Your task to perform on an android device: change keyboard looks Image 0: 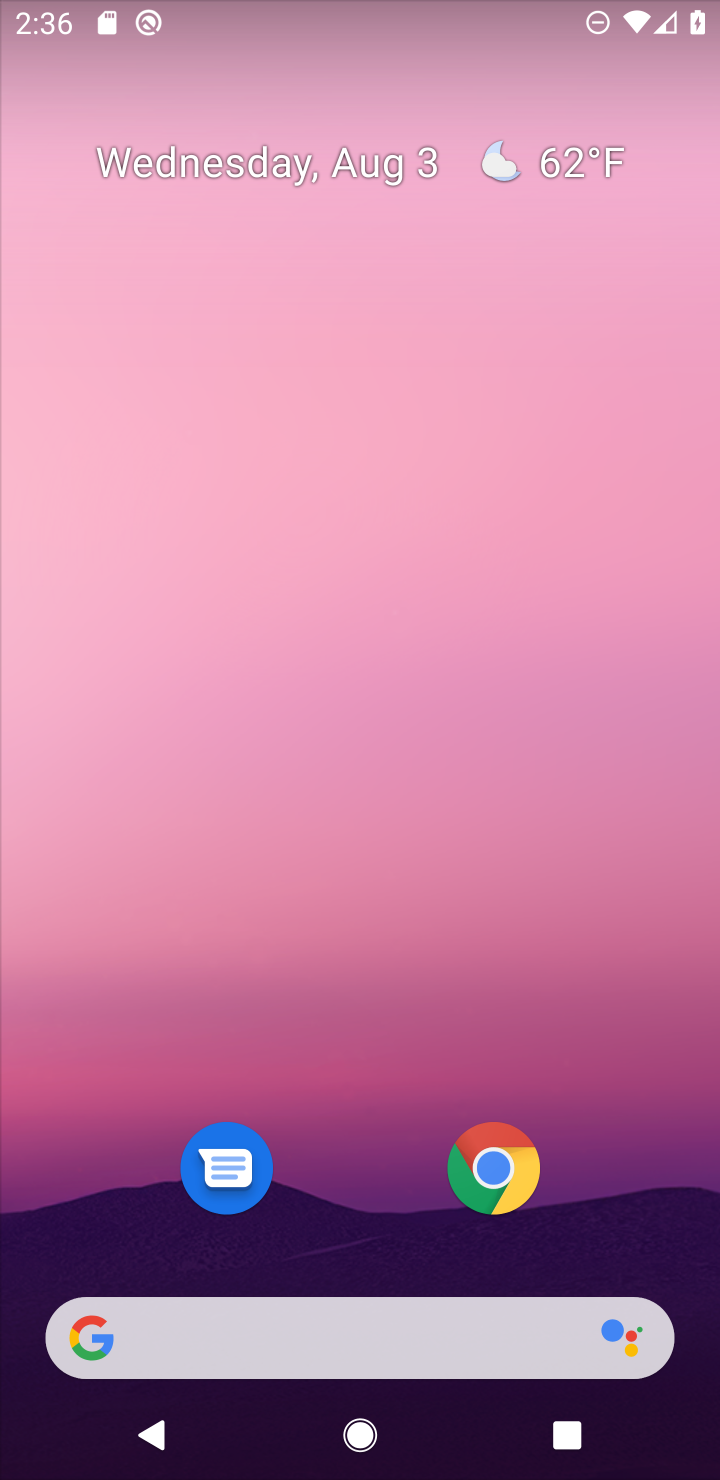
Step 0: drag from (646, 1242) to (653, 337)
Your task to perform on an android device: change keyboard looks Image 1: 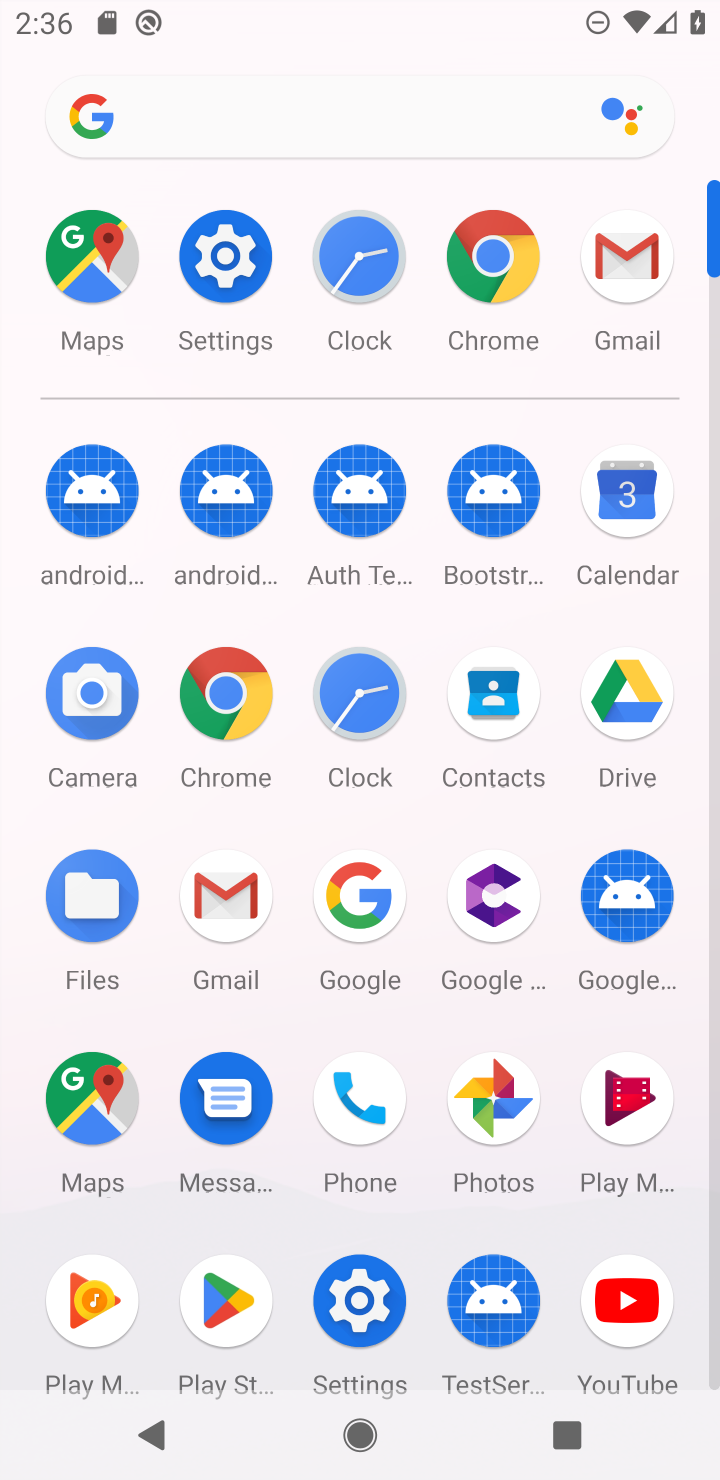
Step 1: click (362, 1300)
Your task to perform on an android device: change keyboard looks Image 2: 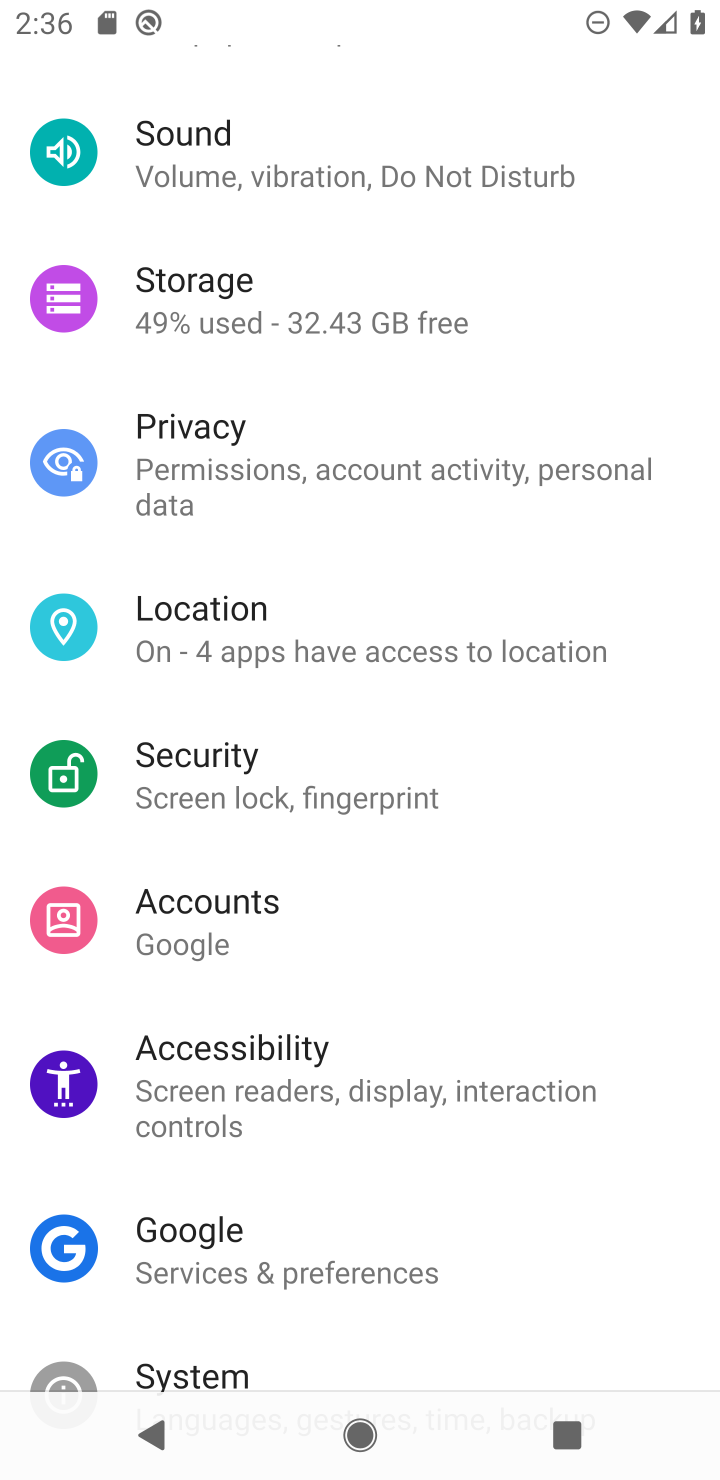
Step 2: drag from (362, 1300) to (420, 294)
Your task to perform on an android device: change keyboard looks Image 3: 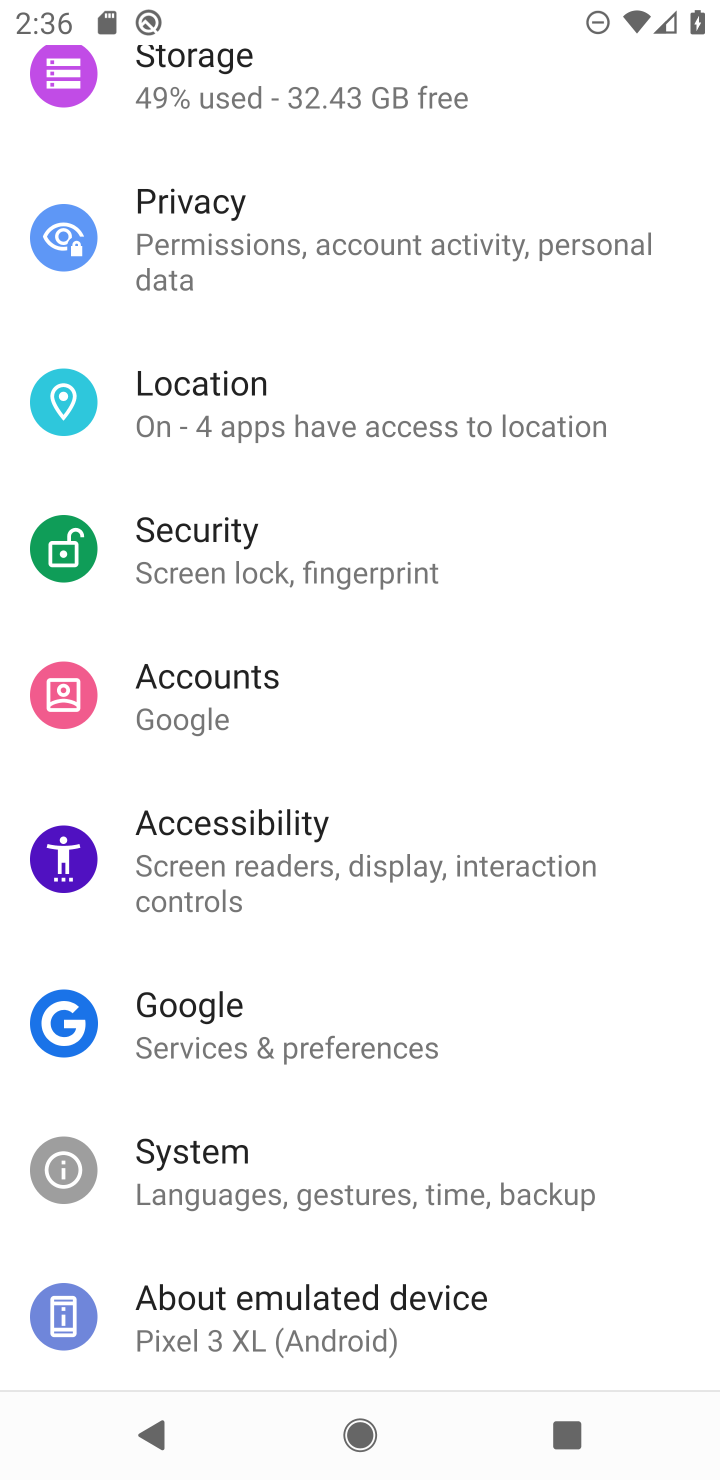
Step 3: click (184, 1157)
Your task to perform on an android device: change keyboard looks Image 4: 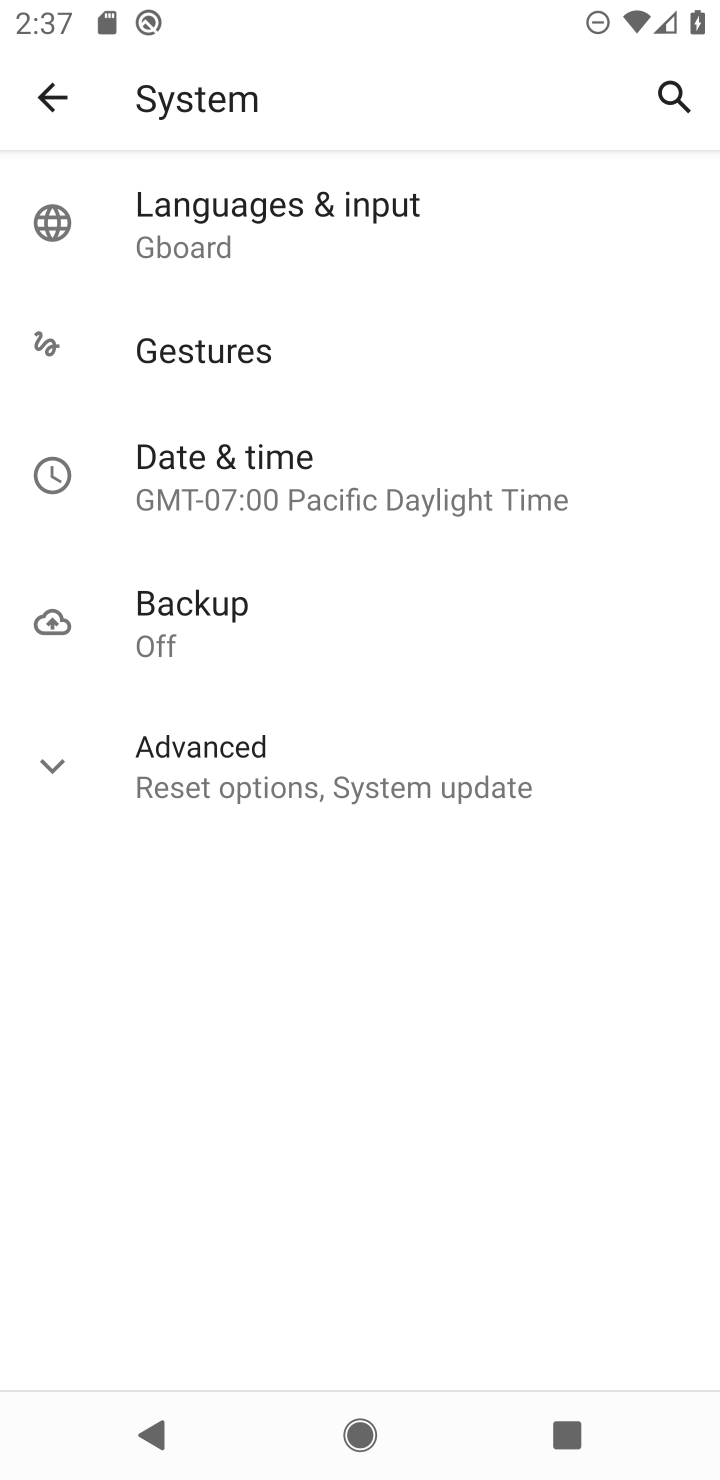
Step 4: click (250, 216)
Your task to perform on an android device: change keyboard looks Image 5: 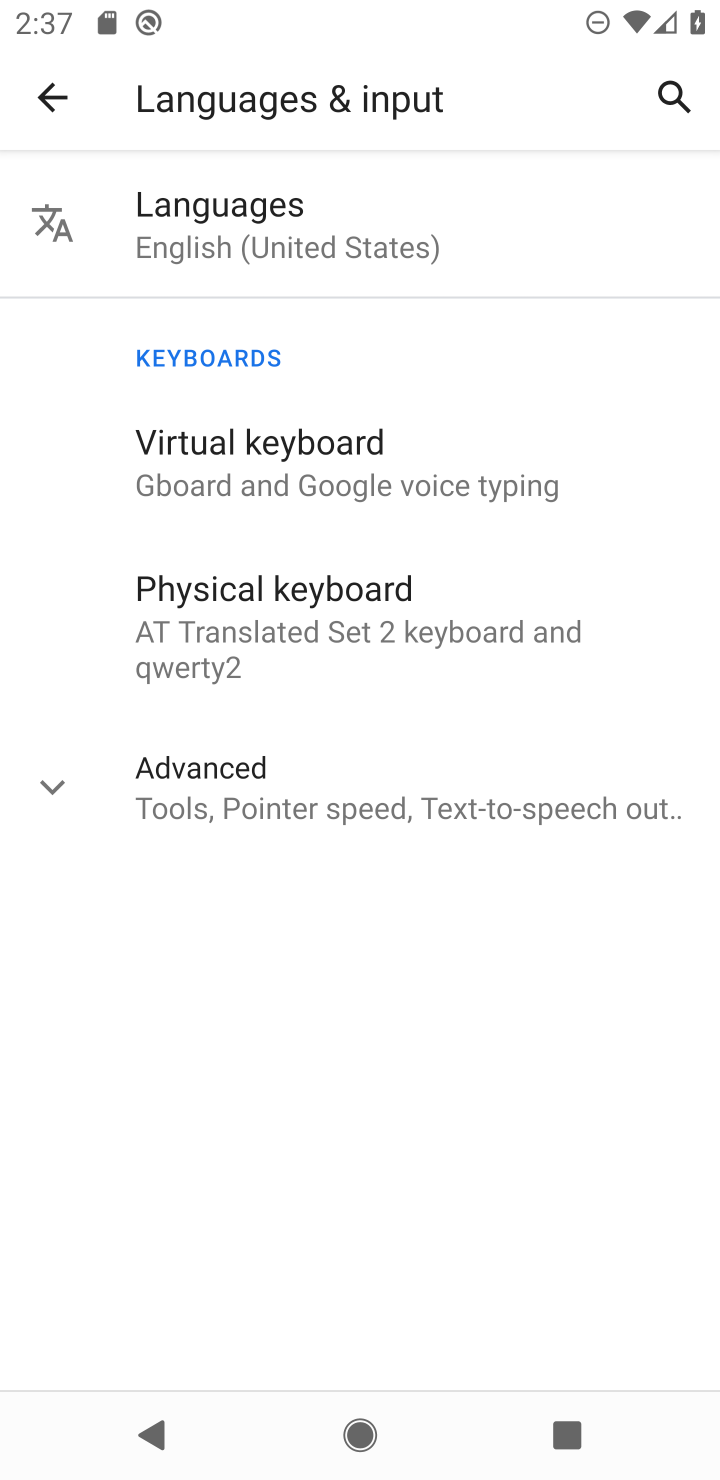
Step 5: click (276, 609)
Your task to perform on an android device: change keyboard looks Image 6: 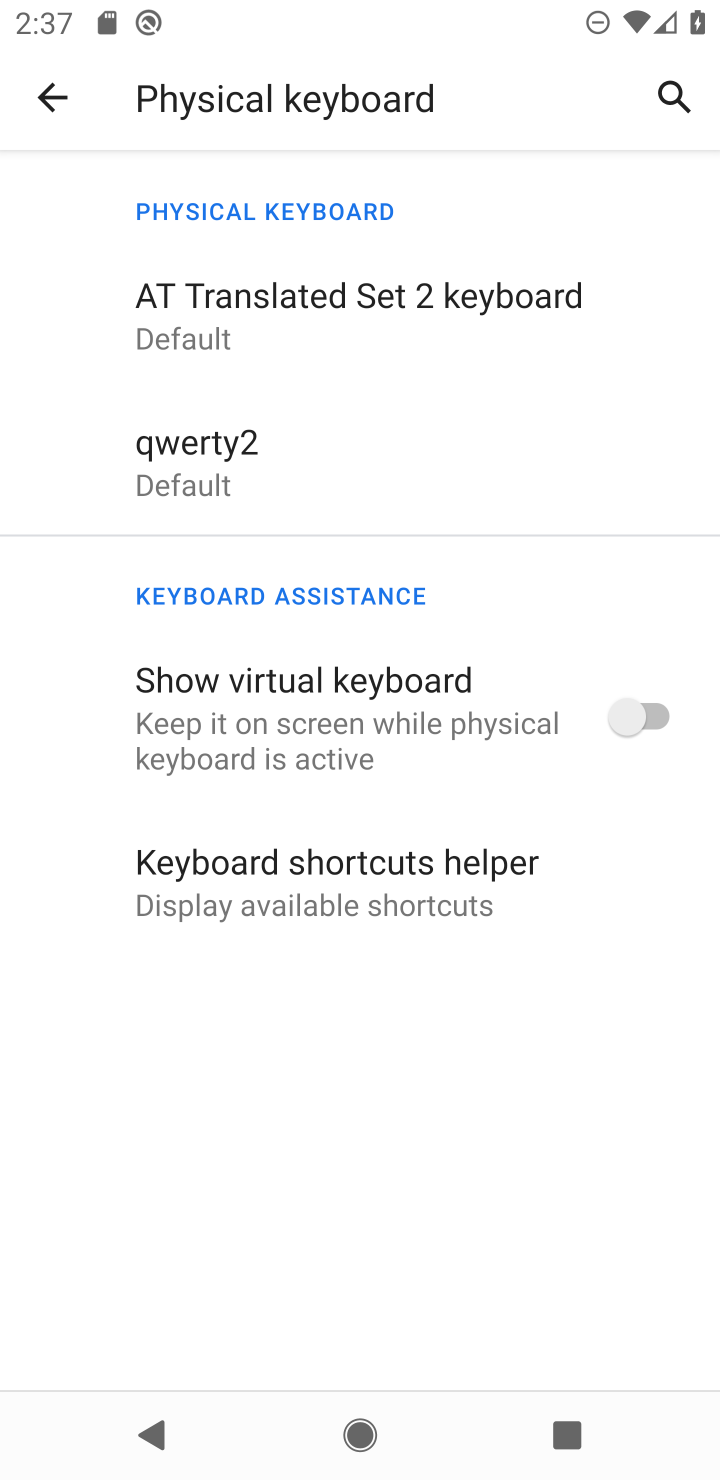
Step 6: click (194, 459)
Your task to perform on an android device: change keyboard looks Image 7: 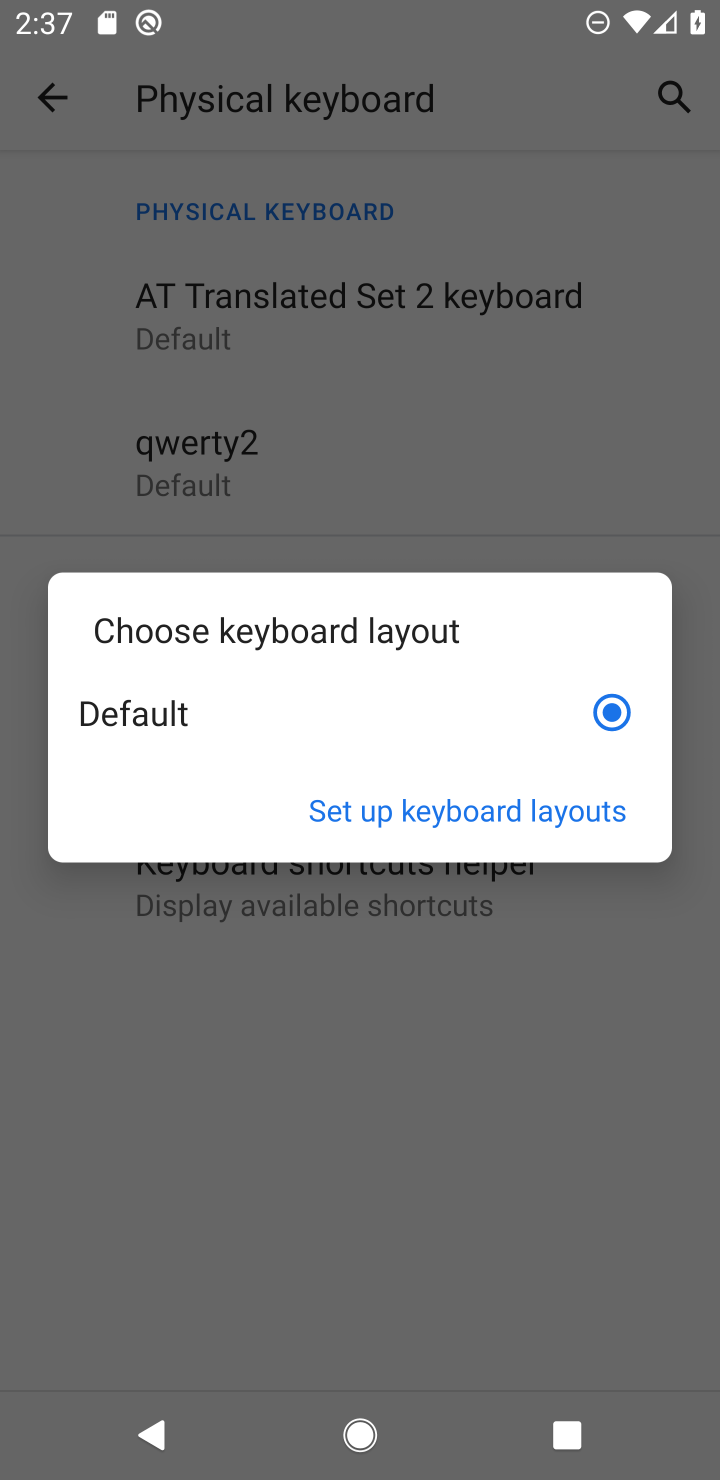
Step 7: click (496, 797)
Your task to perform on an android device: change keyboard looks Image 8: 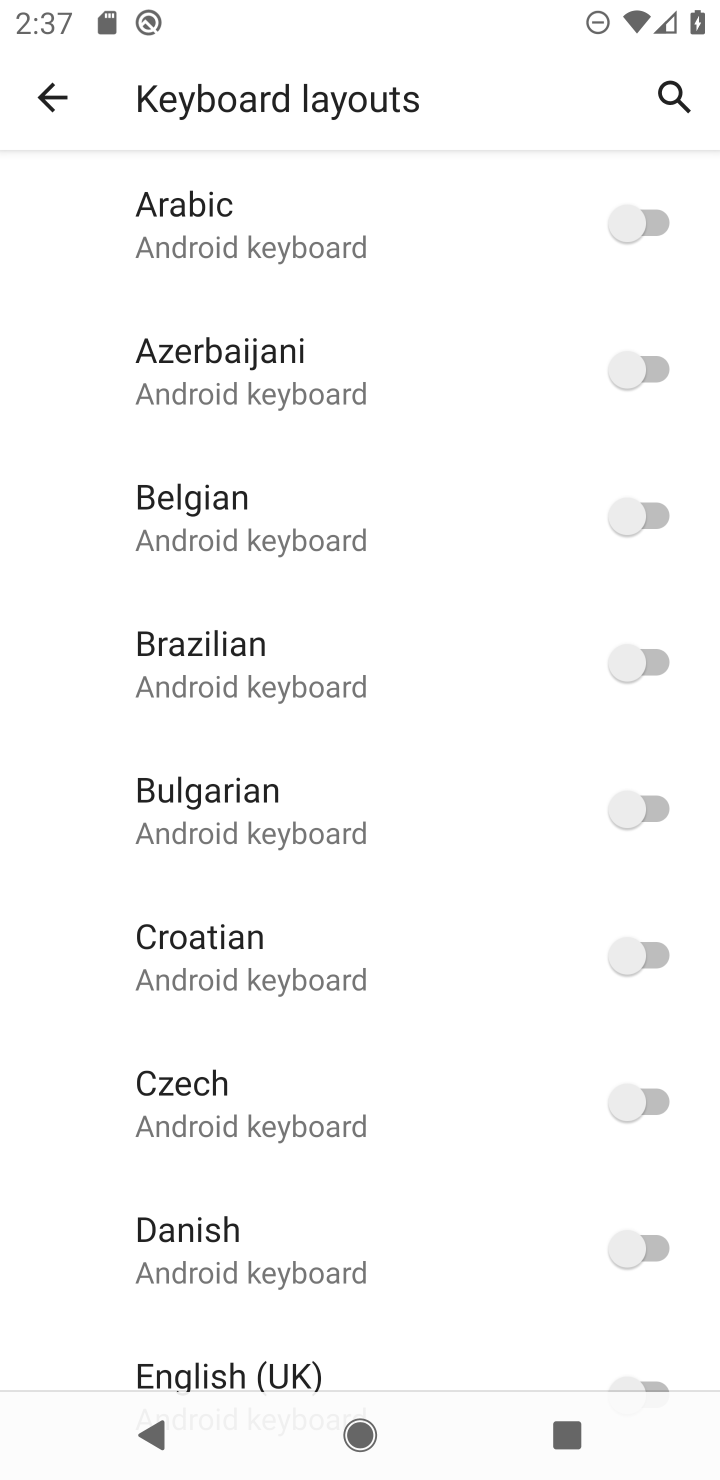
Step 8: drag from (589, 1304) to (496, 440)
Your task to perform on an android device: change keyboard looks Image 9: 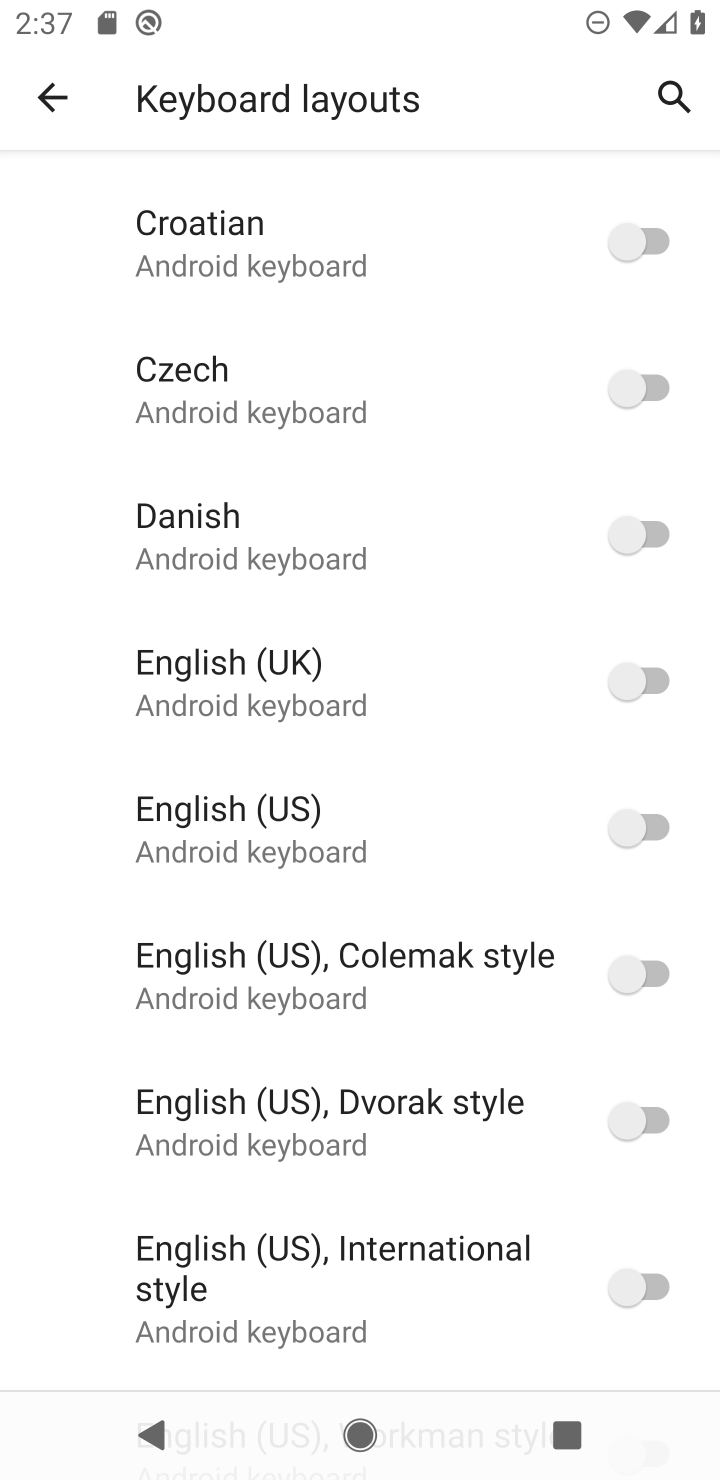
Step 9: click (649, 822)
Your task to perform on an android device: change keyboard looks Image 10: 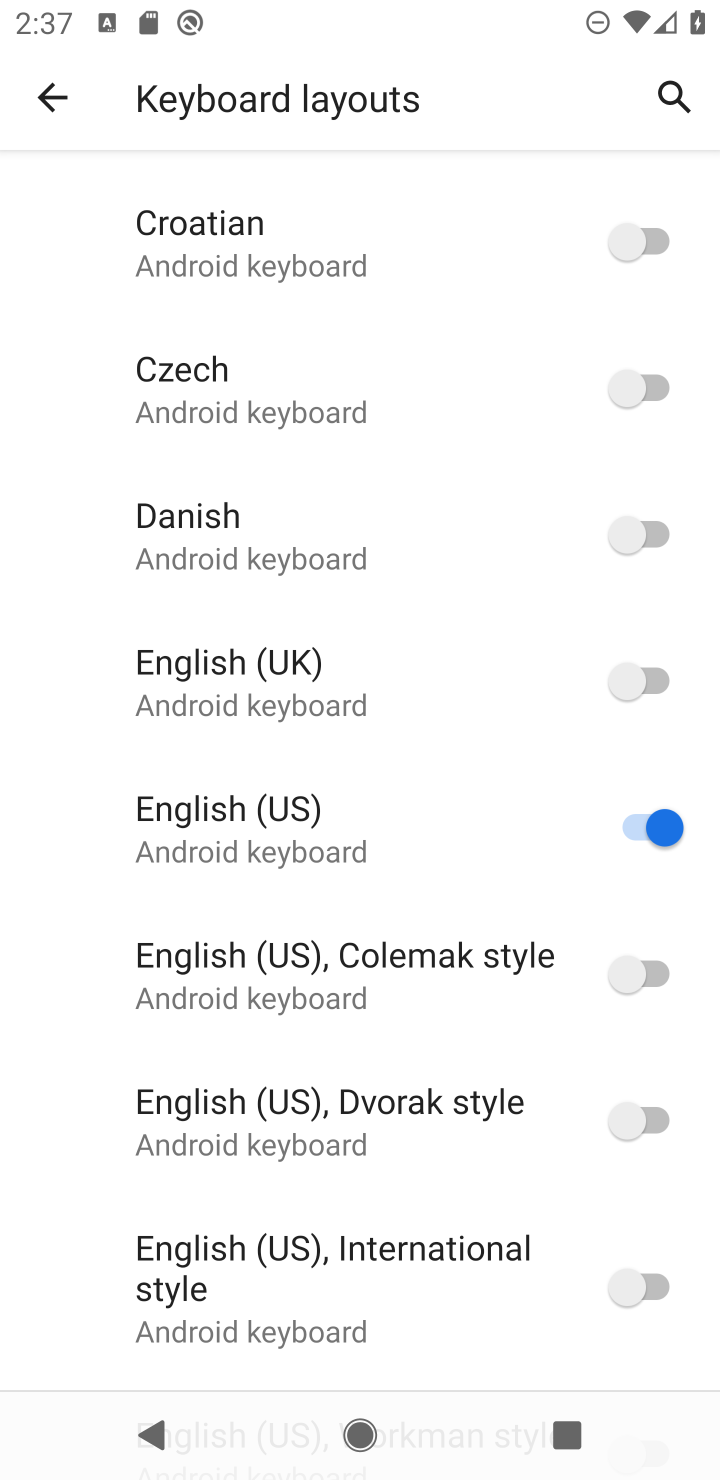
Step 10: task complete